Your task to perform on an android device: turn on showing notifications on the lock screen Image 0: 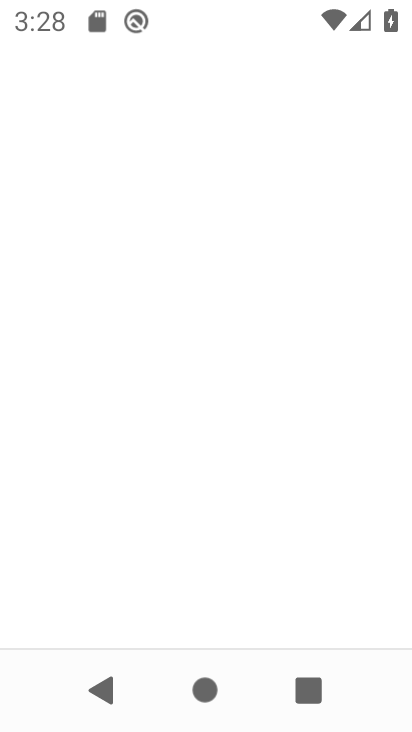
Step 0: press home button
Your task to perform on an android device: turn on showing notifications on the lock screen Image 1: 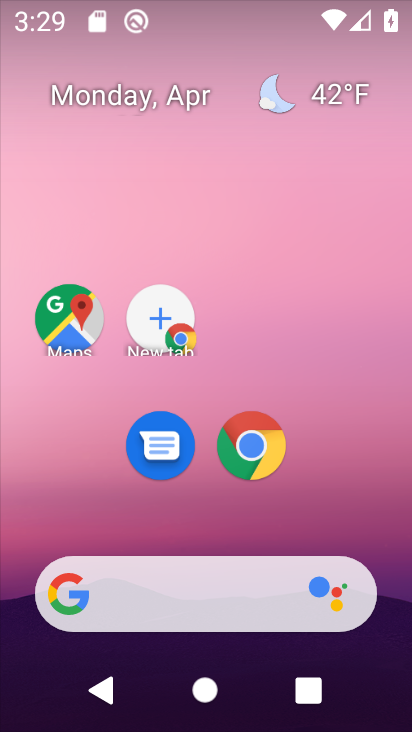
Step 1: drag from (211, 522) to (239, 9)
Your task to perform on an android device: turn on showing notifications on the lock screen Image 2: 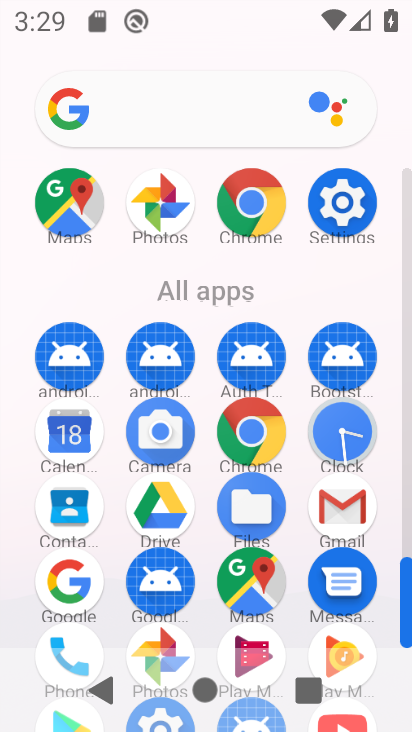
Step 2: click (340, 198)
Your task to perform on an android device: turn on showing notifications on the lock screen Image 3: 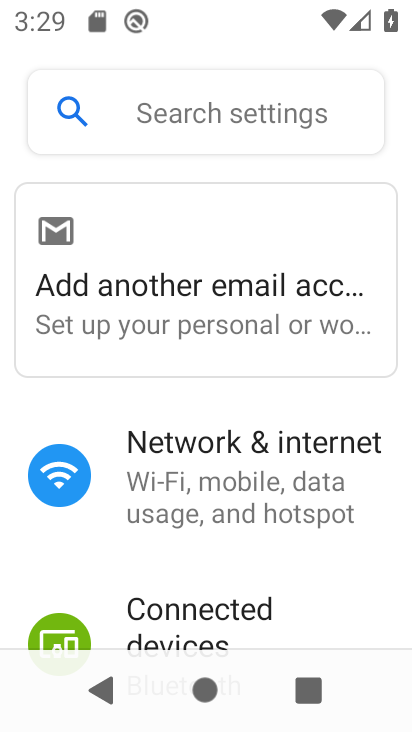
Step 3: drag from (213, 583) to (203, 123)
Your task to perform on an android device: turn on showing notifications on the lock screen Image 4: 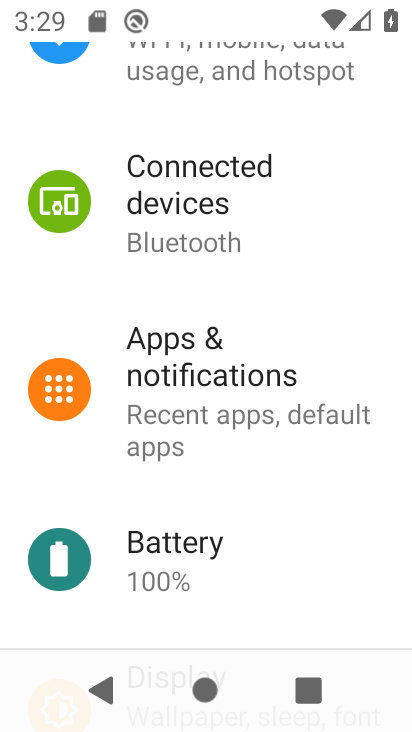
Step 4: click (248, 397)
Your task to perform on an android device: turn on showing notifications on the lock screen Image 5: 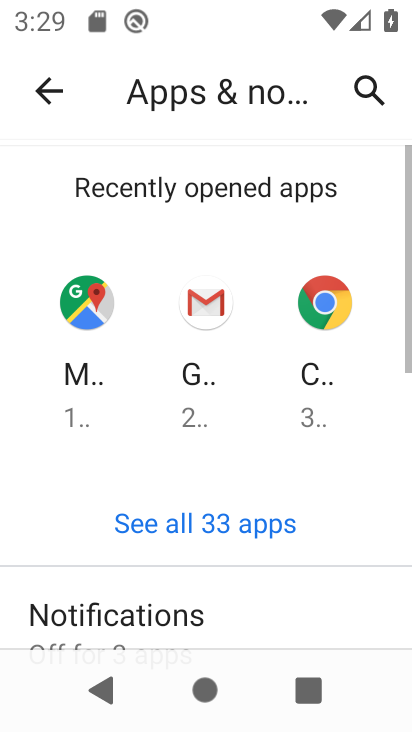
Step 5: drag from (258, 584) to (262, 246)
Your task to perform on an android device: turn on showing notifications on the lock screen Image 6: 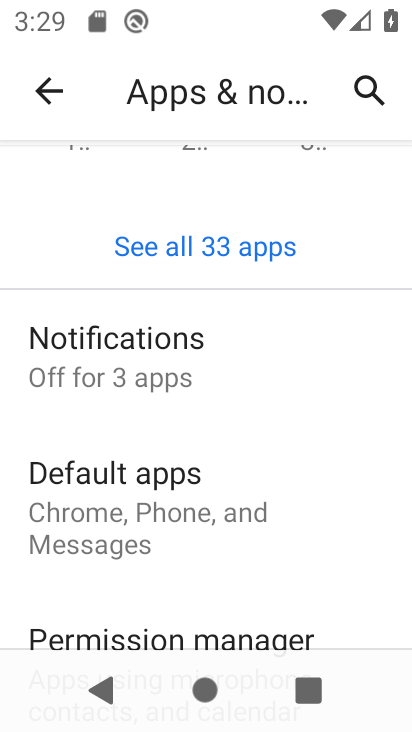
Step 6: click (189, 359)
Your task to perform on an android device: turn on showing notifications on the lock screen Image 7: 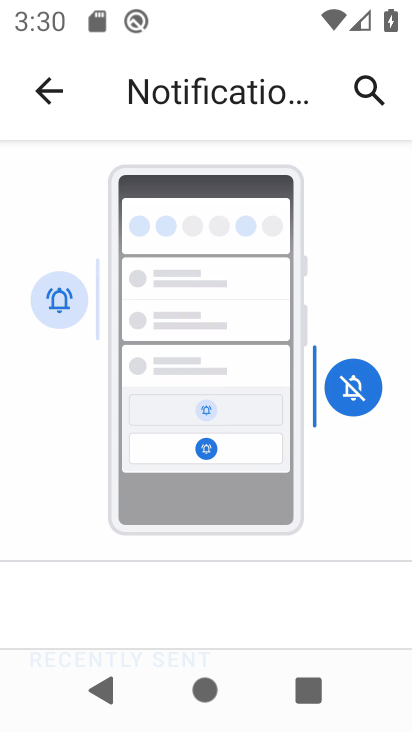
Step 7: drag from (238, 599) to (221, 157)
Your task to perform on an android device: turn on showing notifications on the lock screen Image 8: 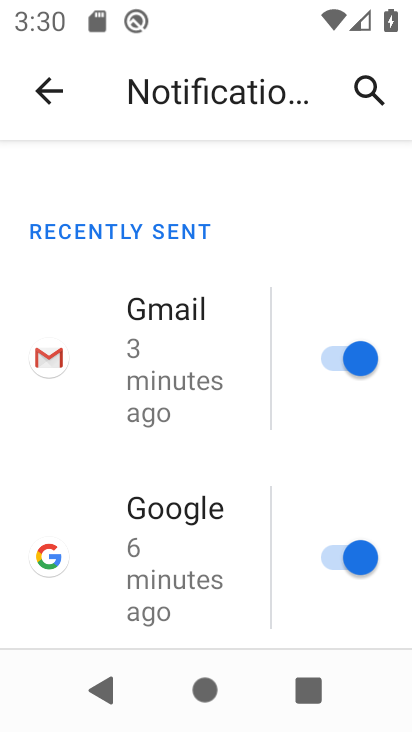
Step 8: drag from (251, 603) to (239, 189)
Your task to perform on an android device: turn on showing notifications on the lock screen Image 9: 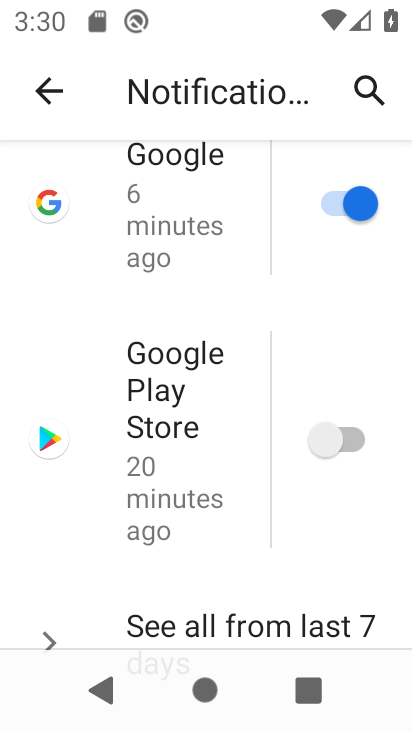
Step 9: drag from (233, 568) to (272, 135)
Your task to perform on an android device: turn on showing notifications on the lock screen Image 10: 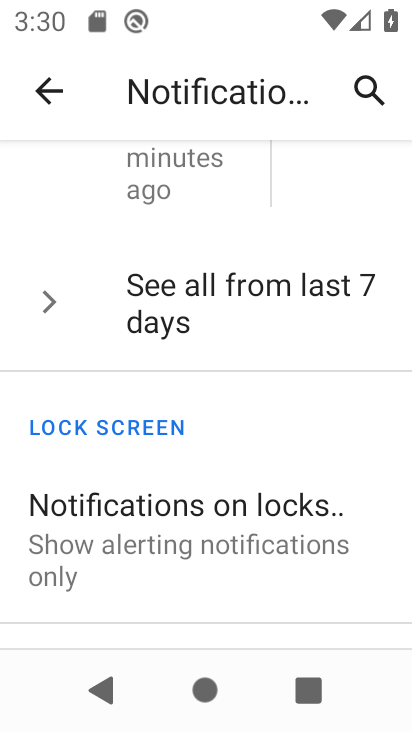
Step 10: click (257, 524)
Your task to perform on an android device: turn on showing notifications on the lock screen Image 11: 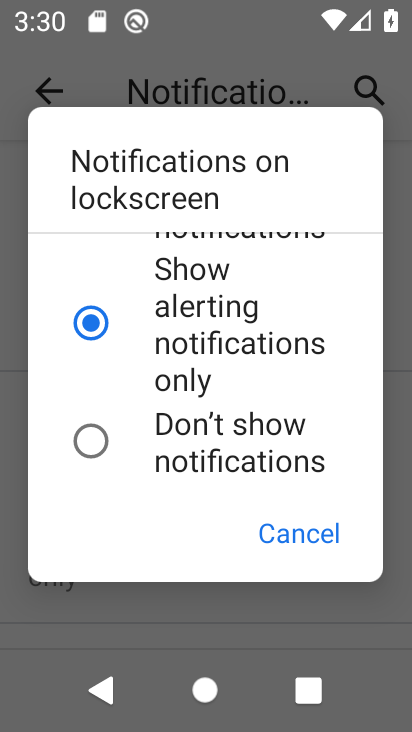
Step 11: drag from (117, 289) to (118, 483)
Your task to perform on an android device: turn on showing notifications on the lock screen Image 12: 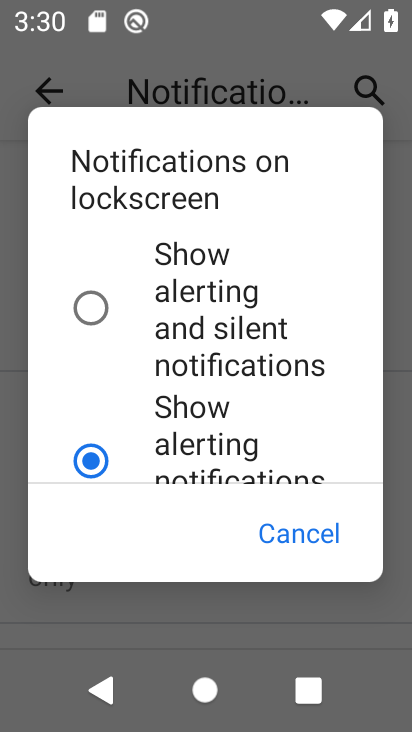
Step 12: click (91, 299)
Your task to perform on an android device: turn on showing notifications on the lock screen Image 13: 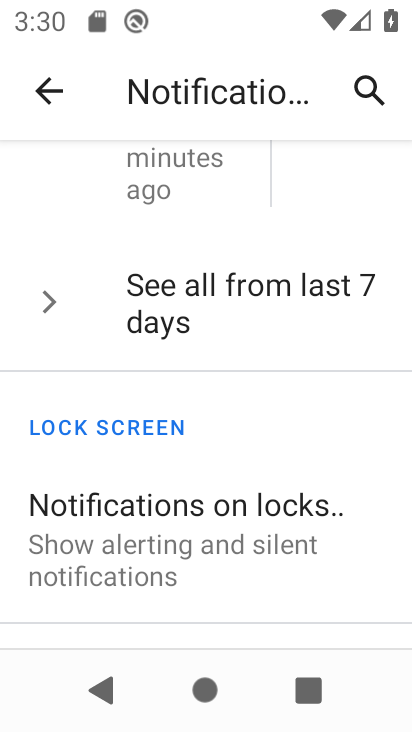
Step 13: task complete